Your task to perform on an android device: remove spam from my inbox in the gmail app Image 0: 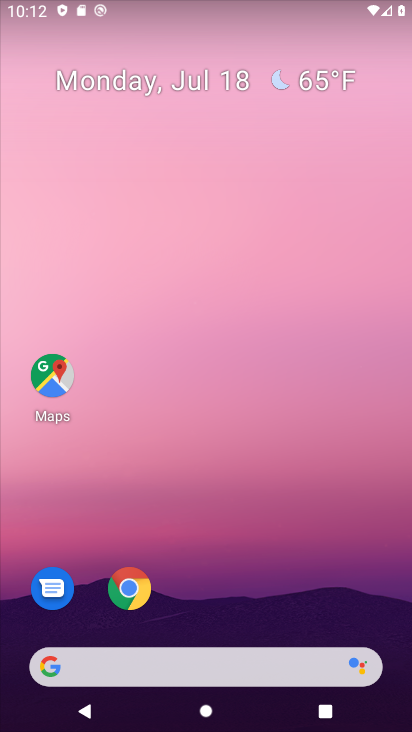
Step 0: press home button
Your task to perform on an android device: remove spam from my inbox in the gmail app Image 1: 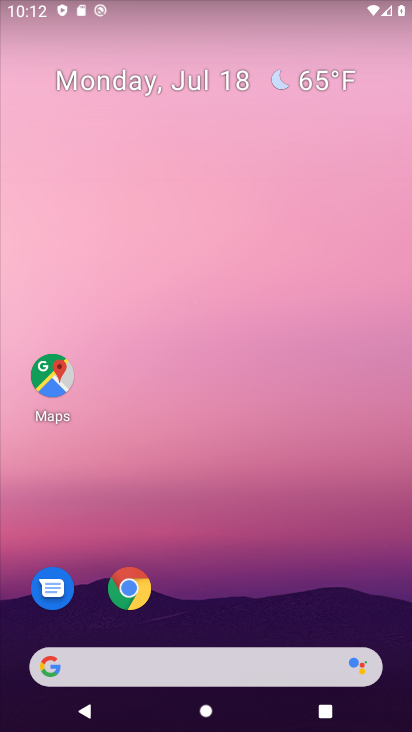
Step 1: drag from (221, 596) to (218, 26)
Your task to perform on an android device: remove spam from my inbox in the gmail app Image 2: 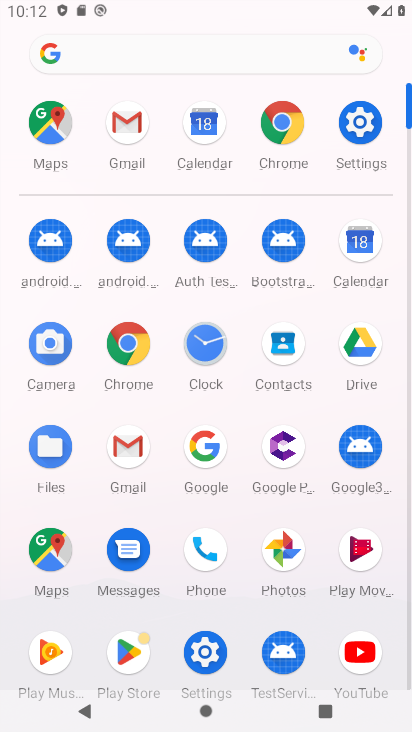
Step 2: click (126, 123)
Your task to perform on an android device: remove spam from my inbox in the gmail app Image 3: 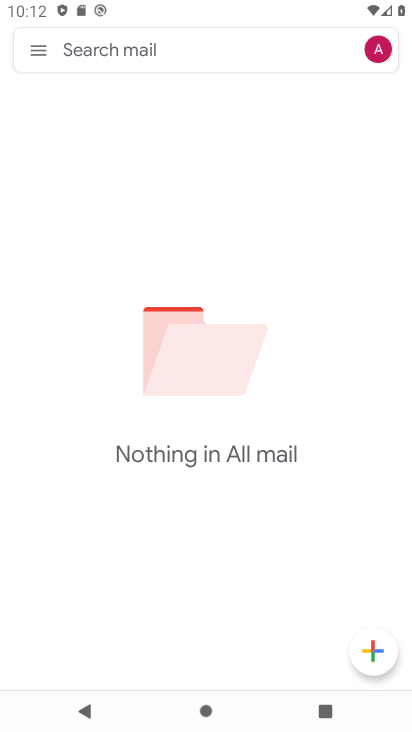
Step 3: click (24, 39)
Your task to perform on an android device: remove spam from my inbox in the gmail app Image 4: 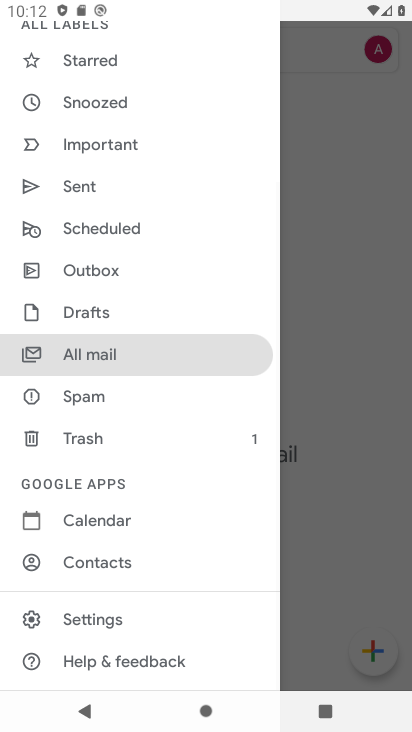
Step 4: drag from (164, 108) to (141, 581)
Your task to perform on an android device: remove spam from my inbox in the gmail app Image 5: 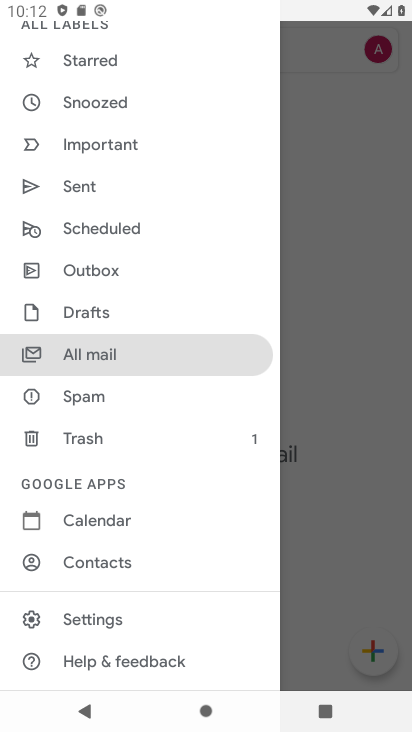
Step 5: click (125, 390)
Your task to perform on an android device: remove spam from my inbox in the gmail app Image 6: 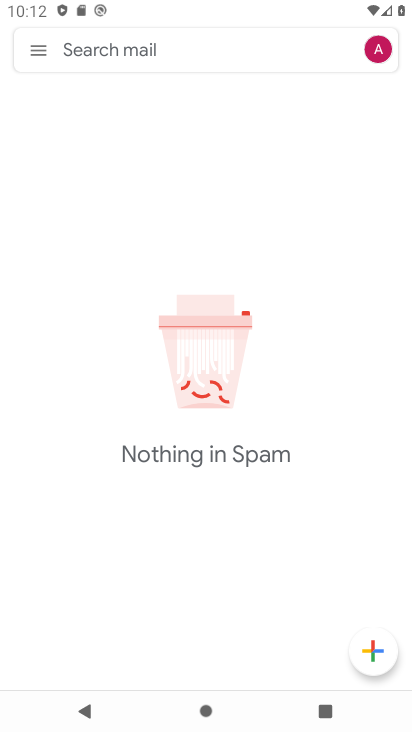
Step 6: task complete